Your task to perform on an android device: Search for razer kraken on walmart, select the first entry, add it to the cart, then select checkout. Image 0: 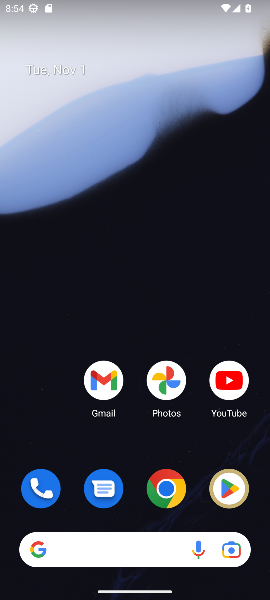
Step 0: click (167, 509)
Your task to perform on an android device: Search for razer kraken on walmart, select the first entry, add it to the cart, then select checkout. Image 1: 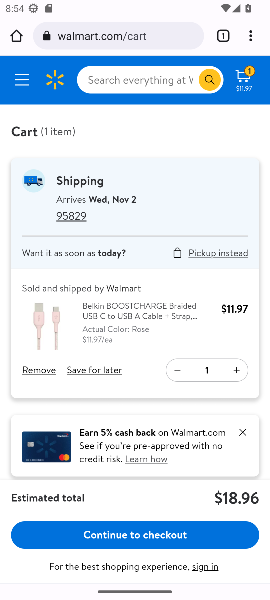
Step 1: click (98, 35)
Your task to perform on an android device: Search for razer kraken on walmart, select the first entry, add it to the cart, then select checkout. Image 2: 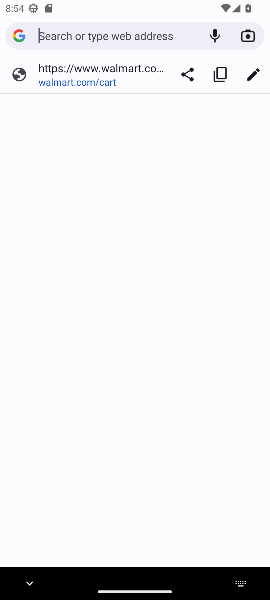
Step 2: type "walmart"
Your task to perform on an android device: Search for razer kraken on walmart, select the first entry, add it to the cart, then select checkout. Image 3: 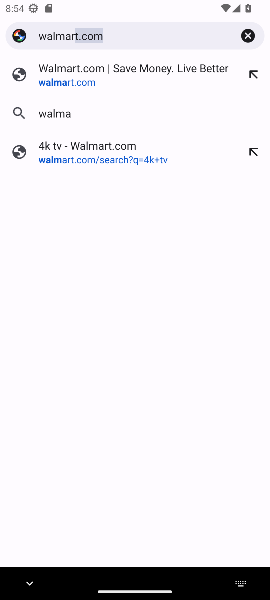
Step 3: type ""
Your task to perform on an android device: Search for razer kraken on walmart, select the first entry, add it to the cart, then select checkout. Image 4: 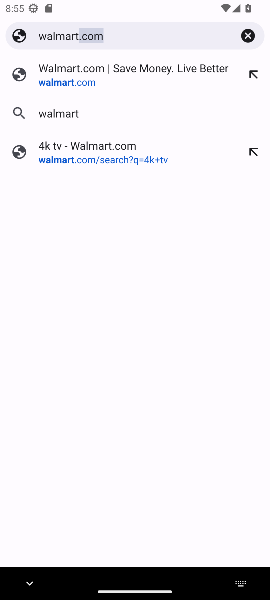
Step 4: press enter
Your task to perform on an android device: Search for razer kraken on walmart, select the first entry, add it to the cart, then select checkout. Image 5: 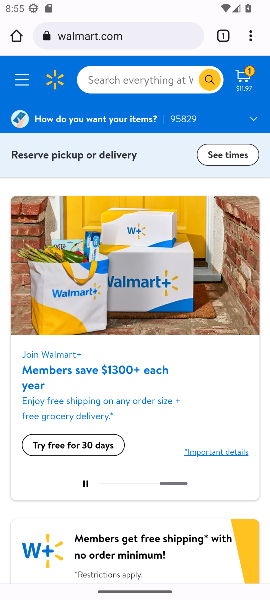
Step 5: click (167, 71)
Your task to perform on an android device: Search for razer kraken on walmart, select the first entry, add it to the cart, then select checkout. Image 6: 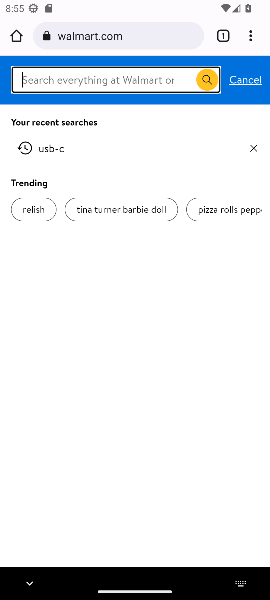
Step 6: type "razer kraken"
Your task to perform on an android device: Search for razer kraken on walmart, select the first entry, add it to the cart, then select checkout. Image 7: 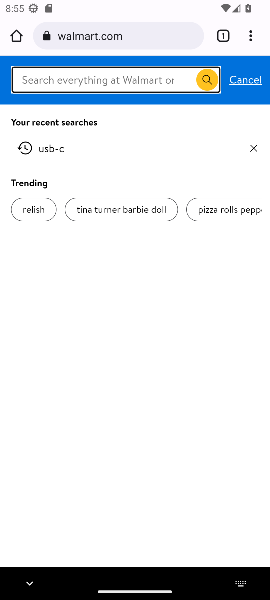
Step 7: type ""
Your task to perform on an android device: Search for razer kraken on walmart, select the first entry, add it to the cart, then select checkout. Image 8: 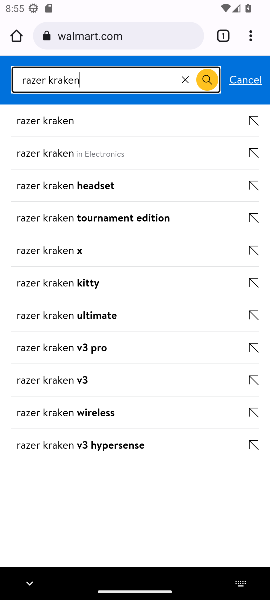
Step 8: press enter
Your task to perform on an android device: Search for razer kraken on walmart, select the first entry, add it to the cart, then select checkout. Image 9: 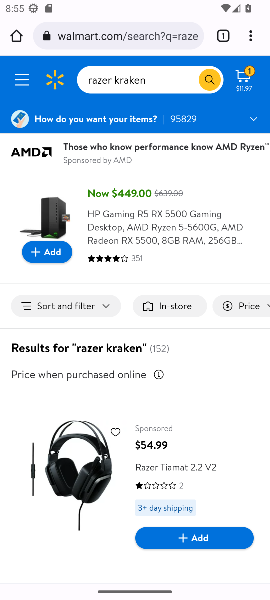
Step 9: drag from (153, 484) to (136, 334)
Your task to perform on an android device: Search for razer kraken on walmart, select the first entry, add it to the cart, then select checkout. Image 10: 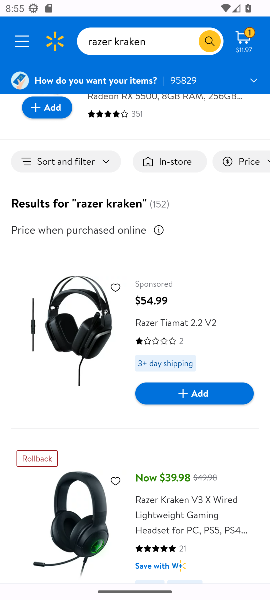
Step 10: drag from (200, 518) to (193, 457)
Your task to perform on an android device: Search for razer kraken on walmart, select the first entry, add it to the cart, then select checkout. Image 11: 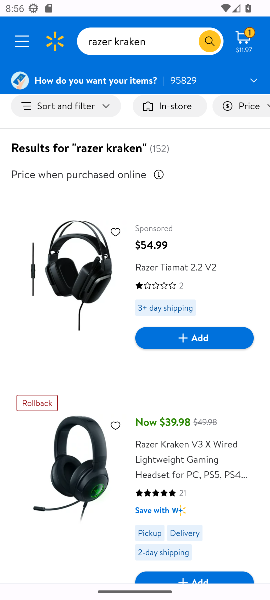
Step 11: click (187, 466)
Your task to perform on an android device: Search for razer kraken on walmart, select the first entry, add it to the cart, then select checkout. Image 12: 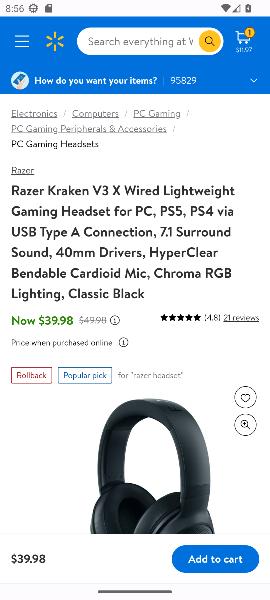
Step 12: click (213, 563)
Your task to perform on an android device: Search for razer kraken on walmart, select the first entry, add it to the cart, then select checkout. Image 13: 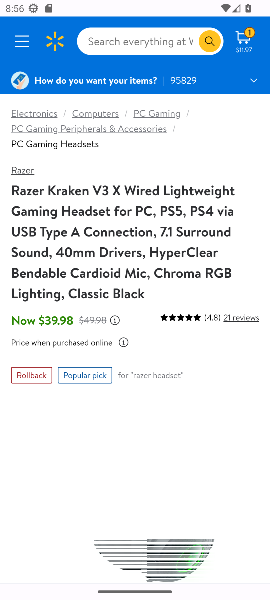
Step 13: drag from (204, 533) to (181, 330)
Your task to perform on an android device: Search for razer kraken on walmart, select the first entry, add it to the cart, then select checkout. Image 14: 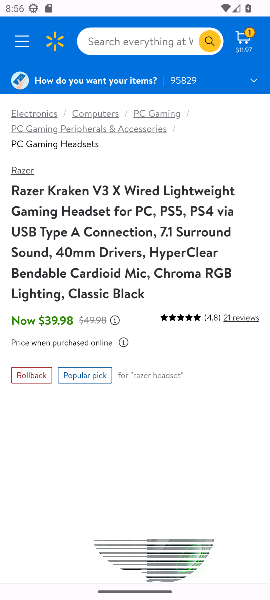
Step 14: drag from (138, 313) to (141, 207)
Your task to perform on an android device: Search for razer kraken on walmart, select the first entry, add it to the cart, then select checkout. Image 15: 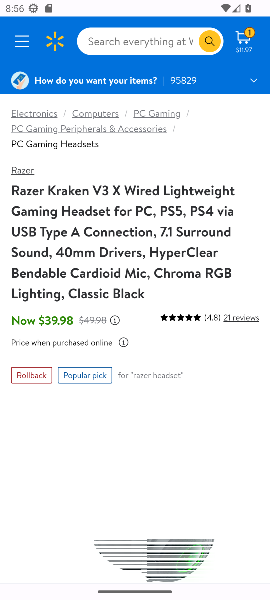
Step 15: click (246, 40)
Your task to perform on an android device: Search for razer kraken on walmart, select the first entry, add it to the cart, then select checkout. Image 16: 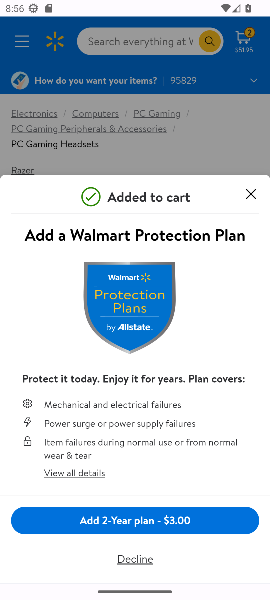
Step 16: click (246, 195)
Your task to perform on an android device: Search for razer kraken on walmart, select the first entry, add it to the cart, then select checkout. Image 17: 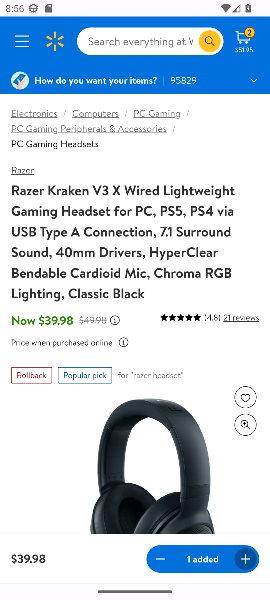
Step 17: click (248, 41)
Your task to perform on an android device: Search for razer kraken on walmart, select the first entry, add it to the cart, then select checkout. Image 18: 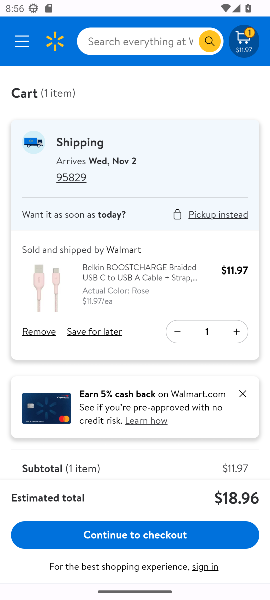
Step 18: click (33, 329)
Your task to perform on an android device: Search for razer kraken on walmart, select the first entry, add it to the cart, then select checkout. Image 19: 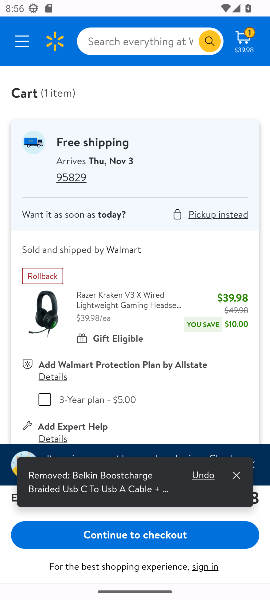
Step 19: click (192, 532)
Your task to perform on an android device: Search for razer kraken on walmart, select the first entry, add it to the cart, then select checkout. Image 20: 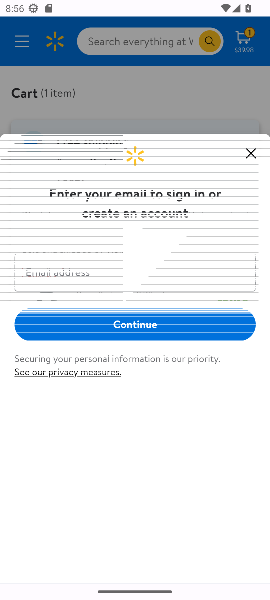
Step 20: click (246, 156)
Your task to perform on an android device: Search for razer kraken on walmart, select the first entry, add it to the cart, then select checkout. Image 21: 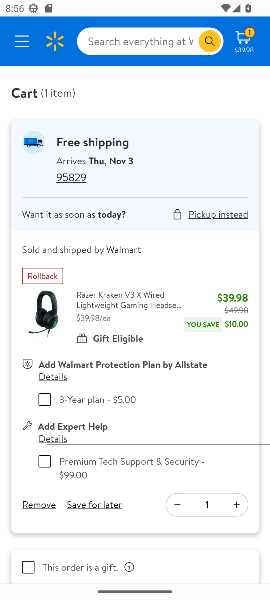
Step 21: task complete